Your task to perform on an android device: open device folders in google photos Image 0: 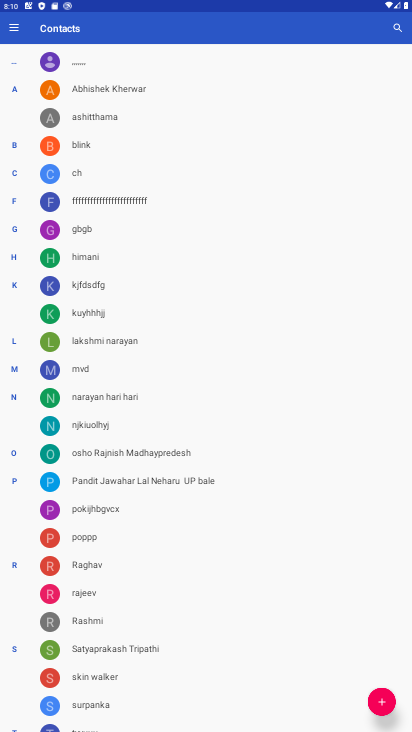
Step 0: press home button
Your task to perform on an android device: open device folders in google photos Image 1: 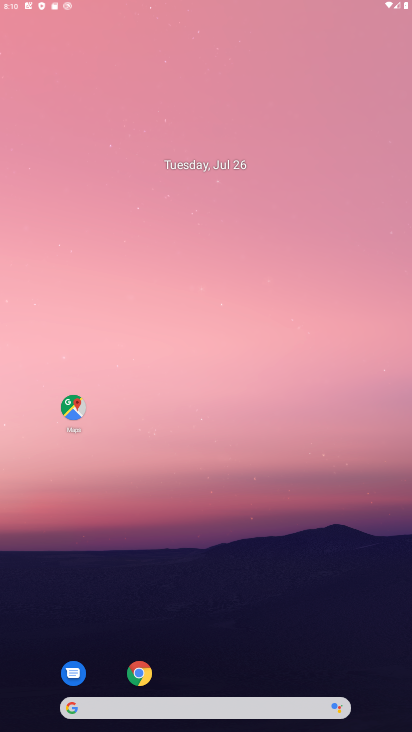
Step 1: drag from (263, 659) to (170, 200)
Your task to perform on an android device: open device folders in google photos Image 2: 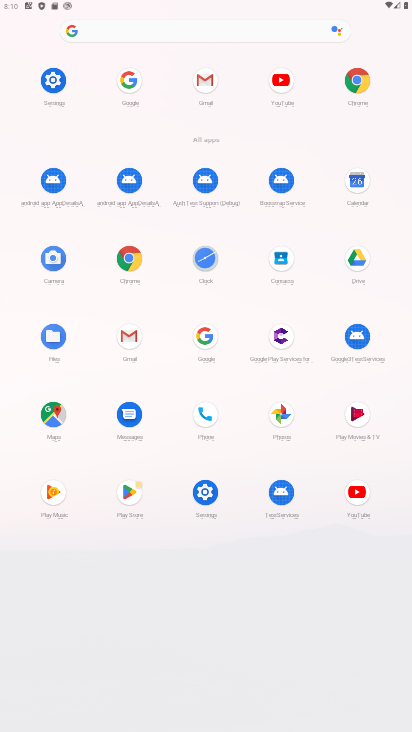
Step 2: click (290, 422)
Your task to perform on an android device: open device folders in google photos Image 3: 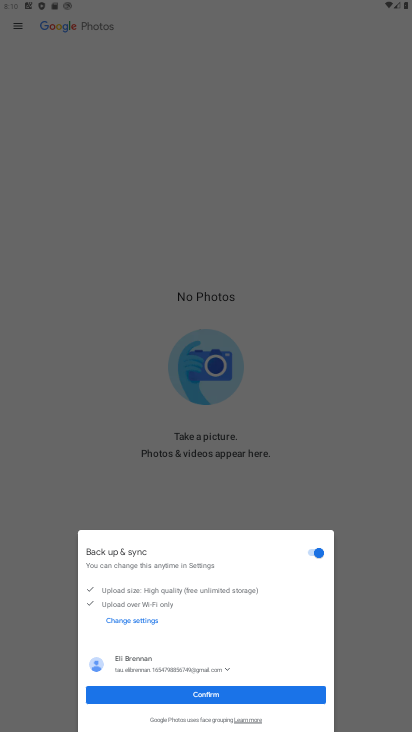
Step 3: click (101, 693)
Your task to perform on an android device: open device folders in google photos Image 4: 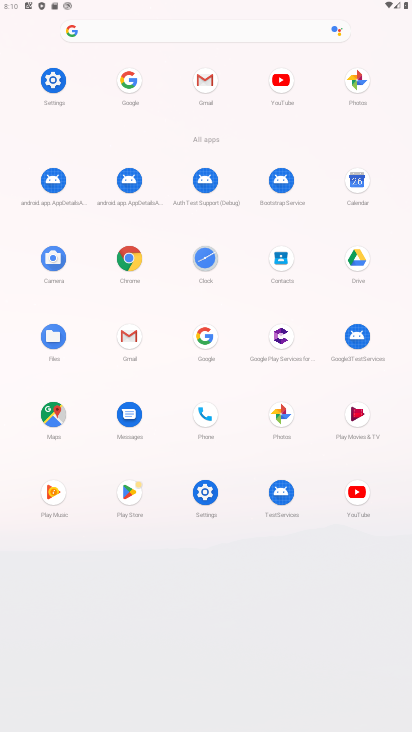
Step 4: click (288, 424)
Your task to perform on an android device: open device folders in google photos Image 5: 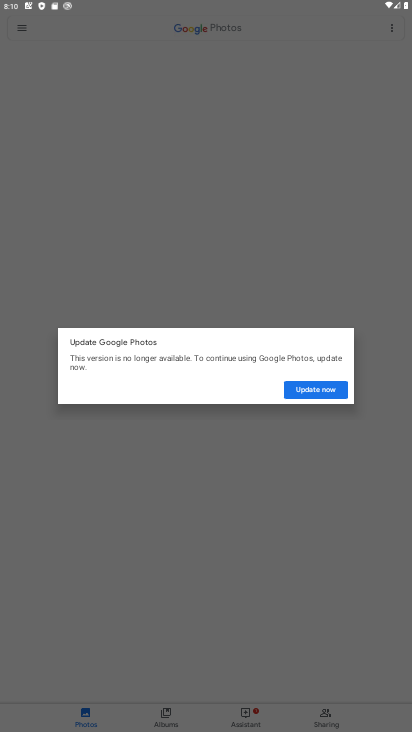
Step 5: click (330, 387)
Your task to perform on an android device: open device folders in google photos Image 6: 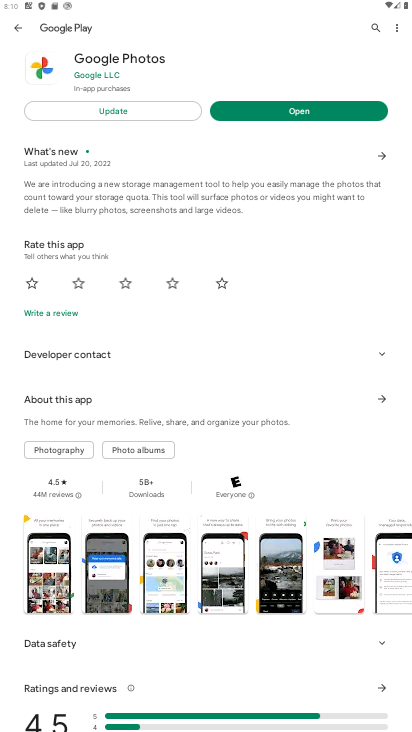
Step 6: click (161, 97)
Your task to perform on an android device: open device folders in google photos Image 7: 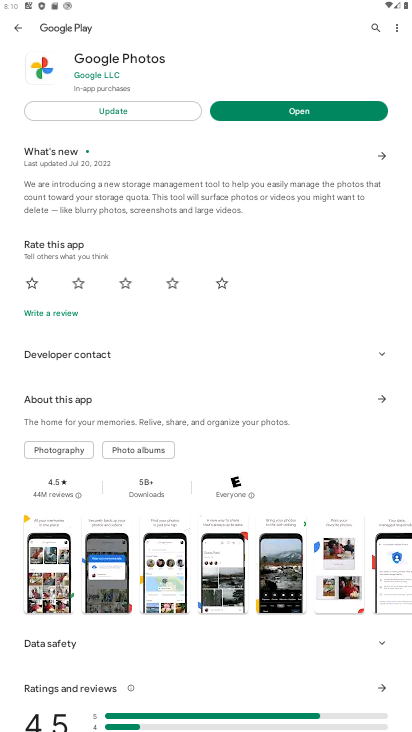
Step 7: click (160, 108)
Your task to perform on an android device: open device folders in google photos Image 8: 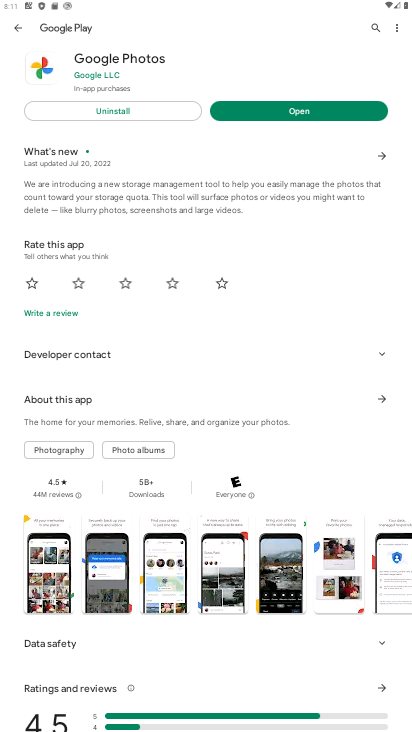
Step 8: click (280, 110)
Your task to perform on an android device: open device folders in google photos Image 9: 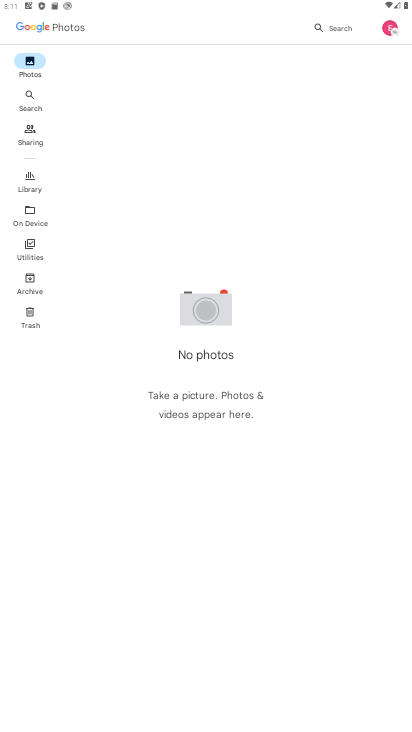
Step 9: task complete